Your task to perform on an android device: remove spam from my inbox in the gmail app Image 0: 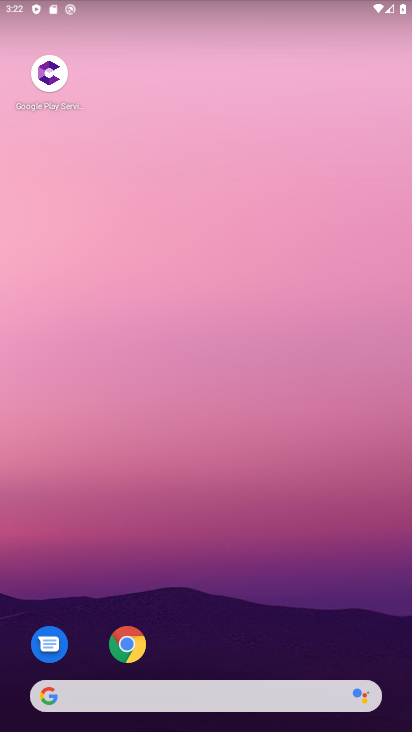
Step 0: drag from (155, 665) to (307, 203)
Your task to perform on an android device: remove spam from my inbox in the gmail app Image 1: 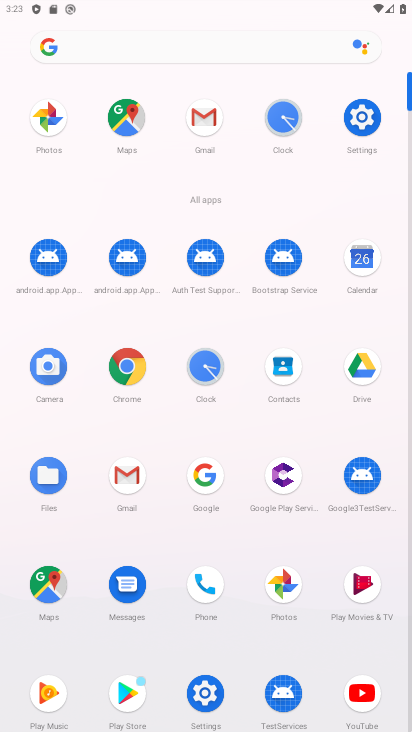
Step 1: click (132, 477)
Your task to perform on an android device: remove spam from my inbox in the gmail app Image 2: 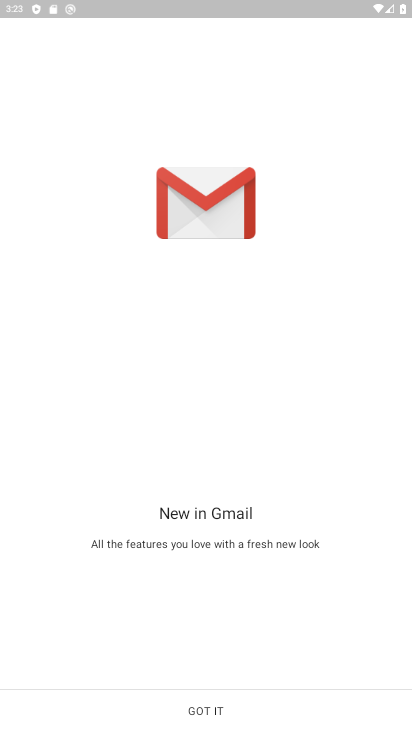
Step 2: click (190, 709)
Your task to perform on an android device: remove spam from my inbox in the gmail app Image 3: 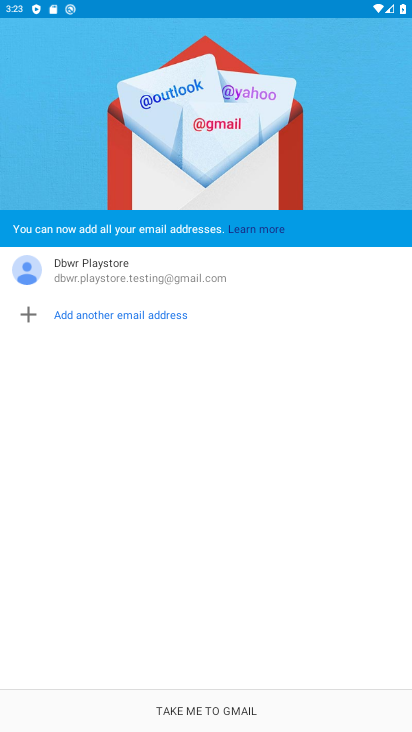
Step 3: click (210, 706)
Your task to perform on an android device: remove spam from my inbox in the gmail app Image 4: 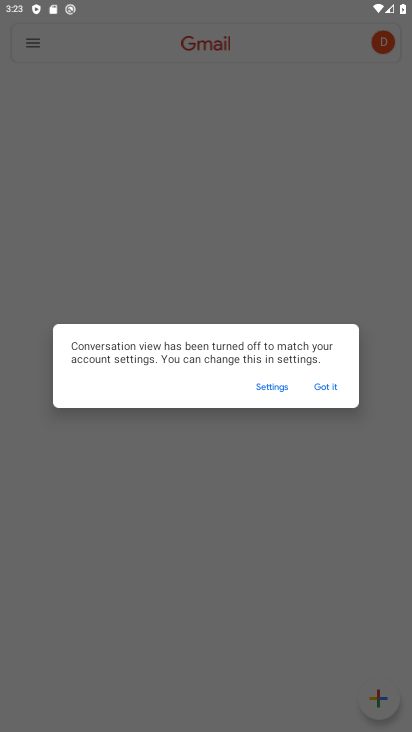
Step 4: click (335, 385)
Your task to perform on an android device: remove spam from my inbox in the gmail app Image 5: 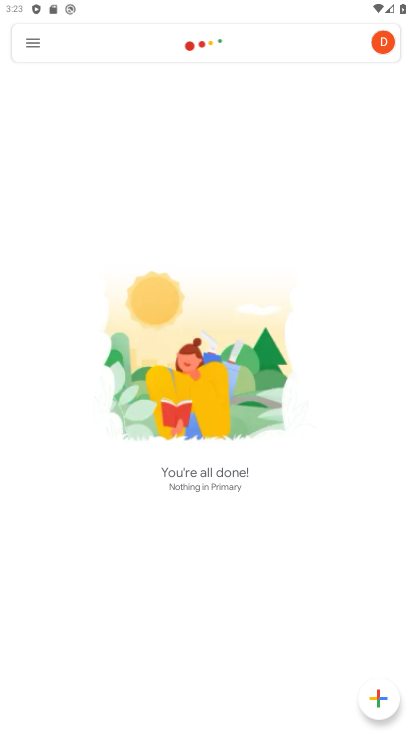
Step 5: click (36, 35)
Your task to perform on an android device: remove spam from my inbox in the gmail app Image 6: 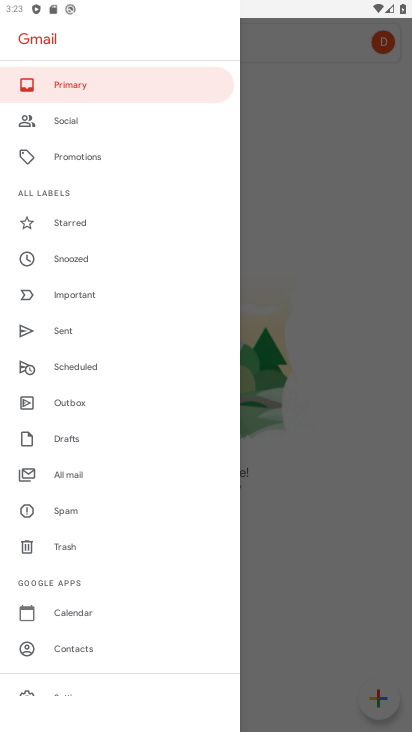
Step 6: click (93, 511)
Your task to perform on an android device: remove spam from my inbox in the gmail app Image 7: 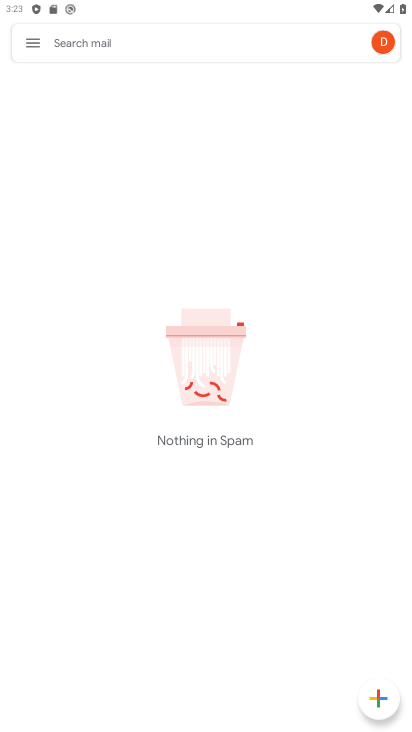
Step 7: task complete